Your task to perform on an android device: open chrome and create a bookmark for the current page Image 0: 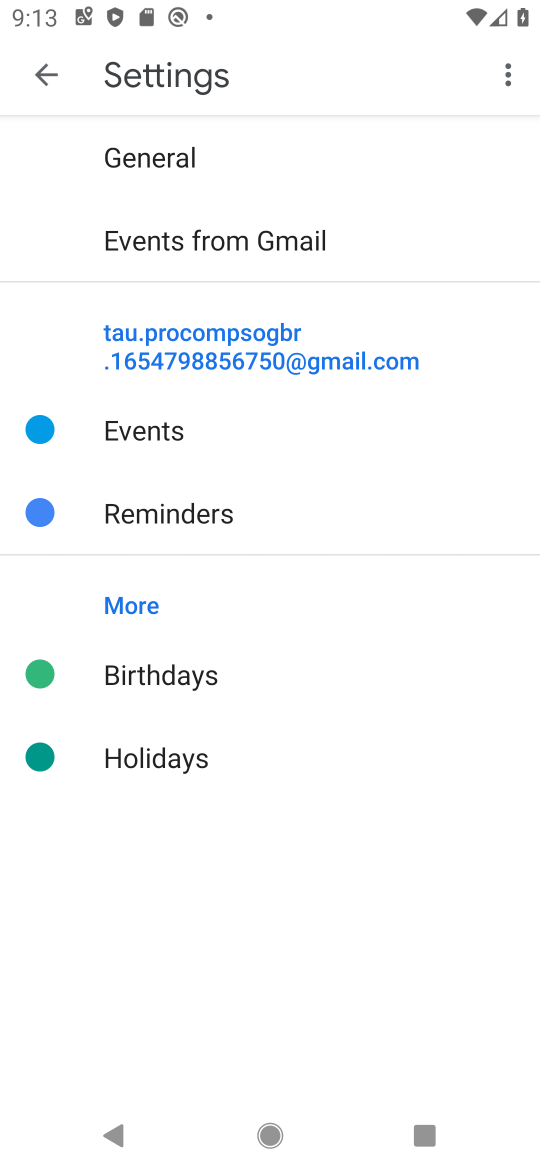
Step 0: press home button
Your task to perform on an android device: open chrome and create a bookmark for the current page Image 1: 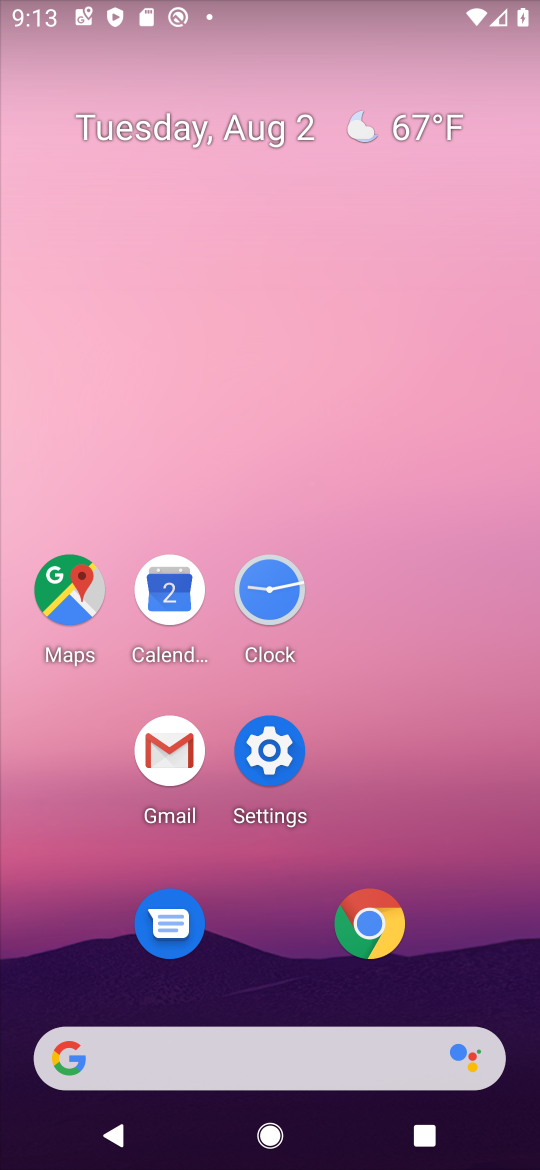
Step 1: click (357, 927)
Your task to perform on an android device: open chrome and create a bookmark for the current page Image 2: 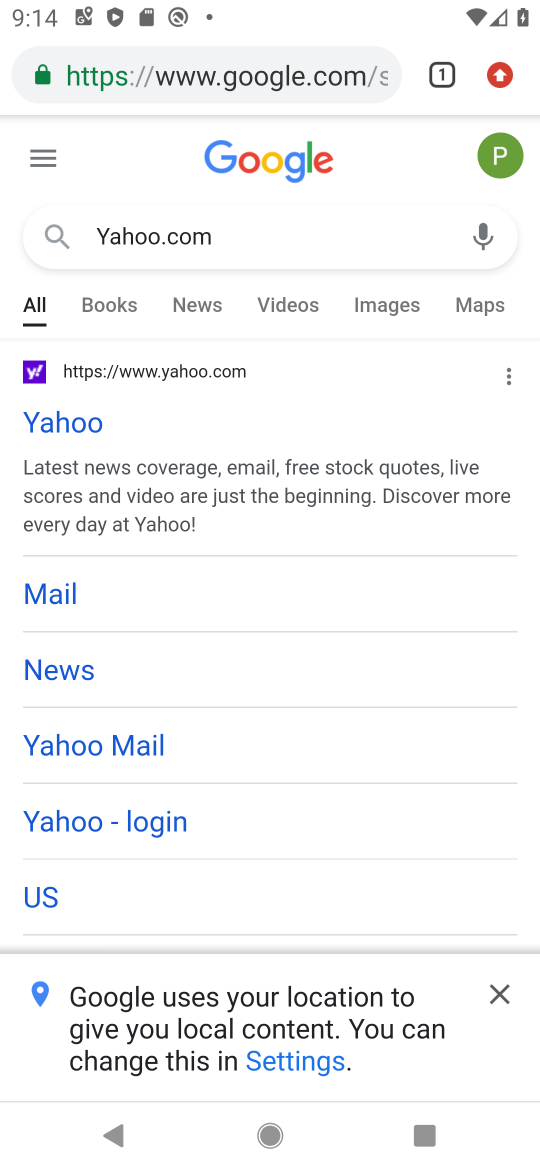
Step 2: click (502, 77)
Your task to perform on an android device: open chrome and create a bookmark for the current page Image 3: 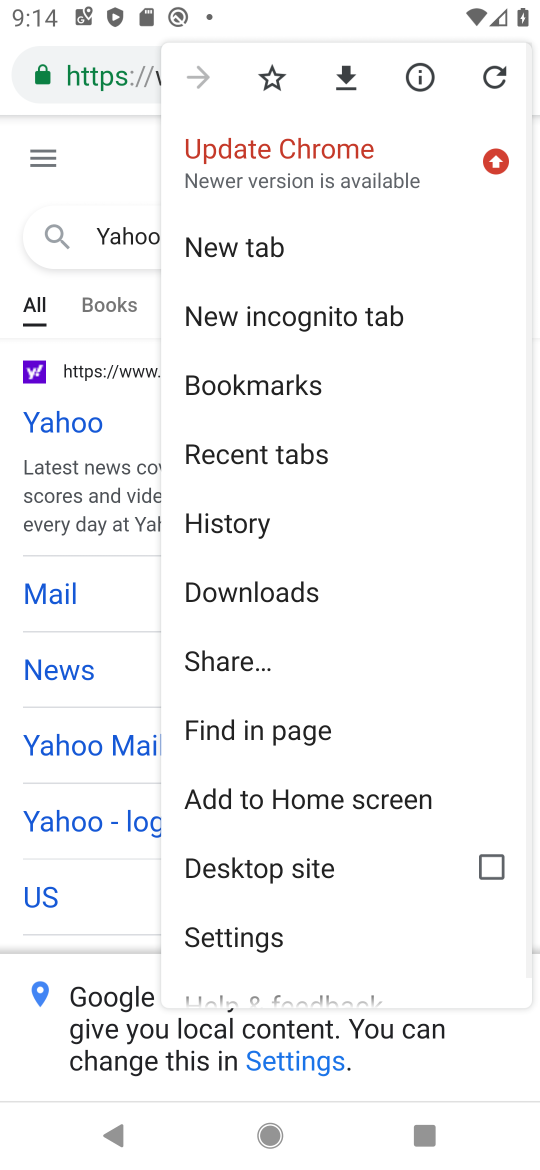
Step 3: click (264, 73)
Your task to perform on an android device: open chrome and create a bookmark for the current page Image 4: 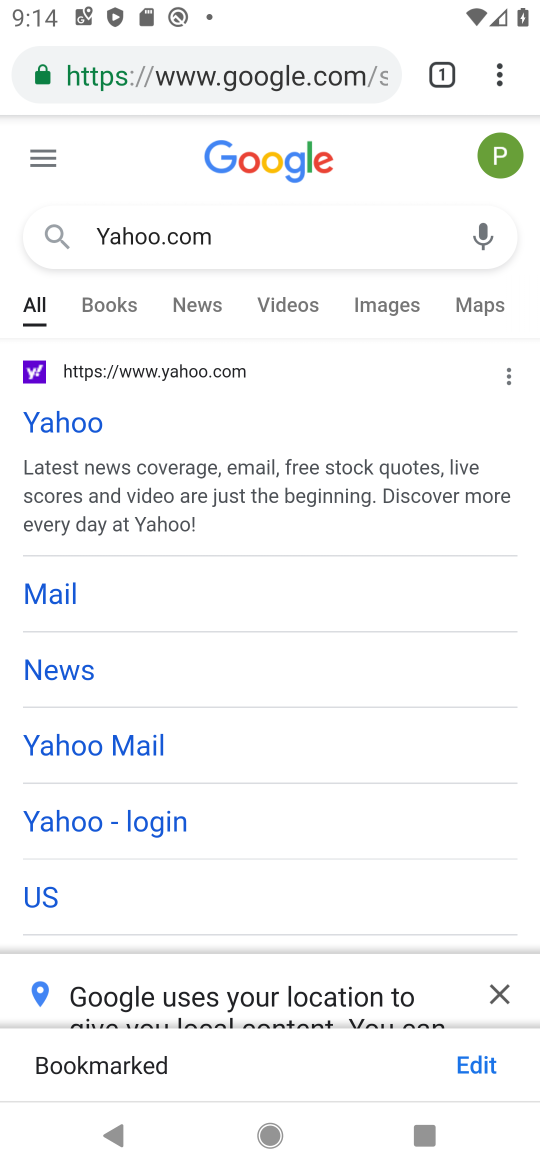
Step 4: task complete